Your task to perform on an android device: turn on location history Image 0: 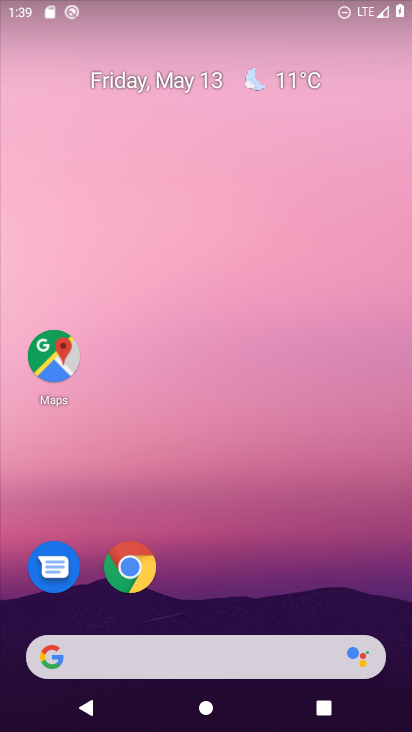
Step 0: drag from (226, 589) to (268, 58)
Your task to perform on an android device: turn on location history Image 1: 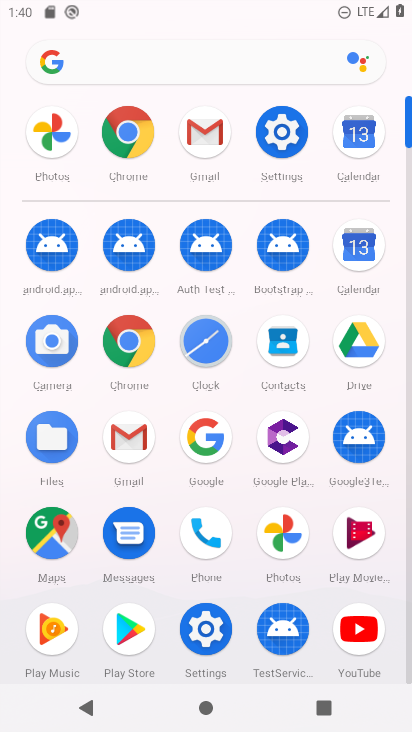
Step 1: click (276, 125)
Your task to perform on an android device: turn on location history Image 2: 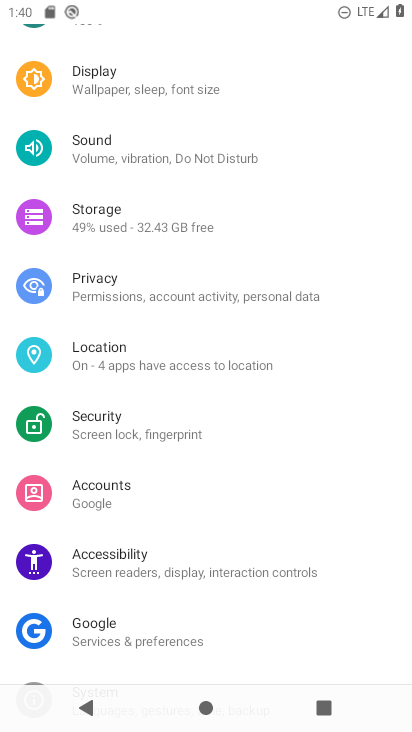
Step 2: click (138, 347)
Your task to perform on an android device: turn on location history Image 3: 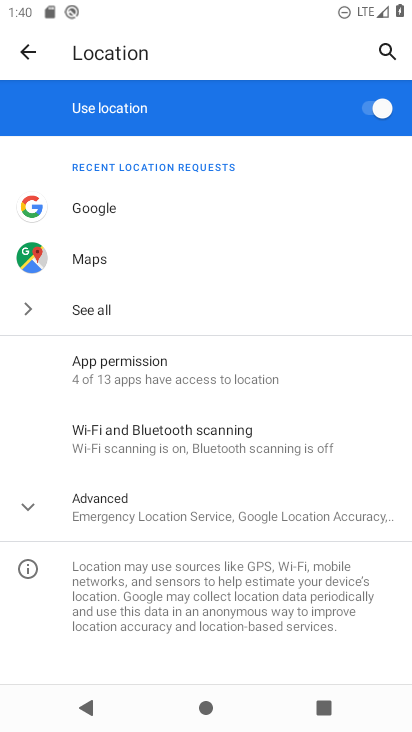
Step 3: click (92, 508)
Your task to perform on an android device: turn on location history Image 4: 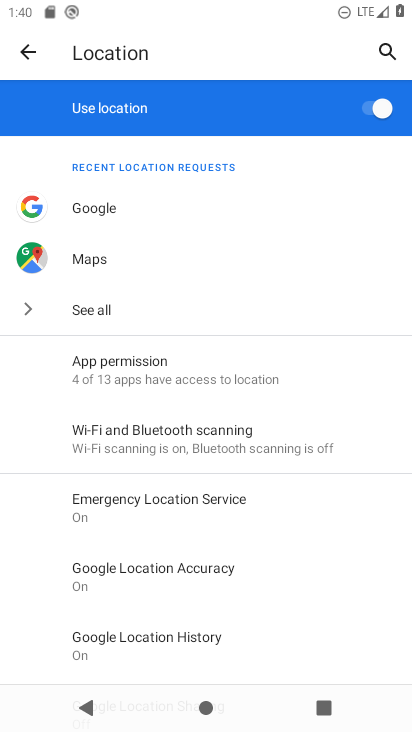
Step 4: click (228, 639)
Your task to perform on an android device: turn on location history Image 5: 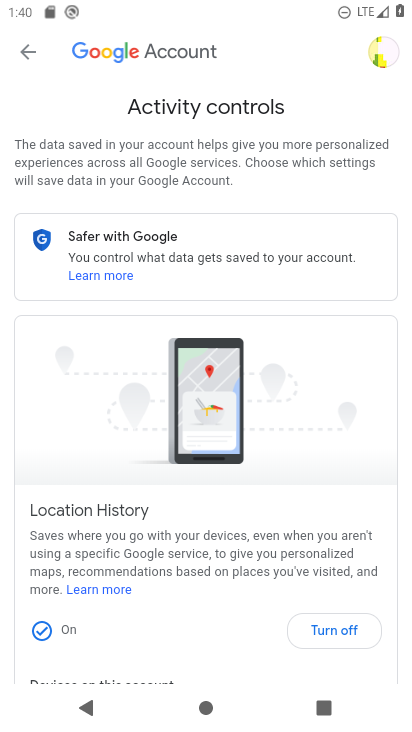
Step 5: task complete